Your task to perform on an android device: create a new album in the google photos Image 0: 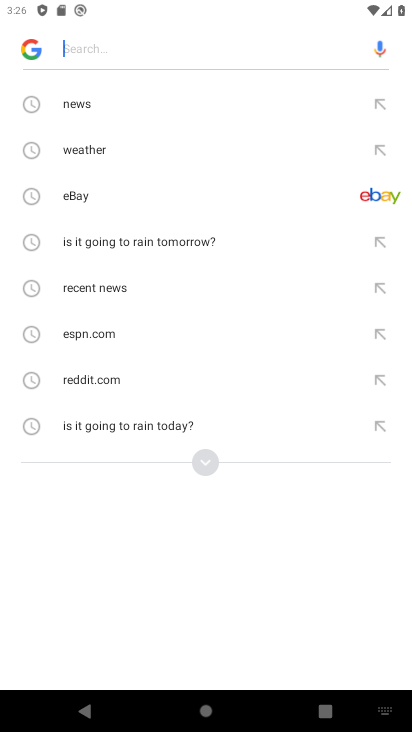
Step 0: press home button
Your task to perform on an android device: create a new album in the google photos Image 1: 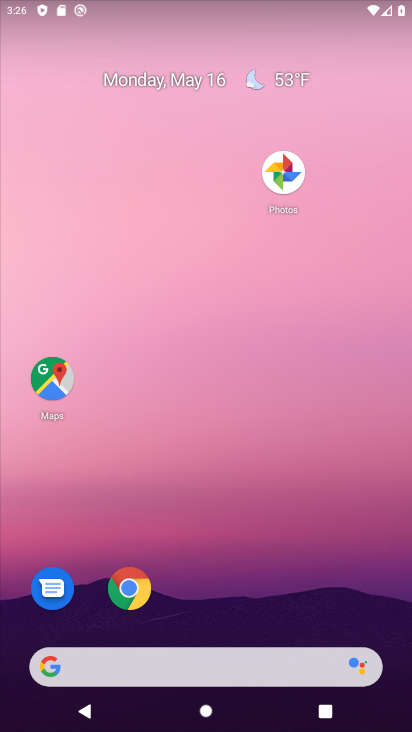
Step 1: click (272, 180)
Your task to perform on an android device: create a new album in the google photos Image 2: 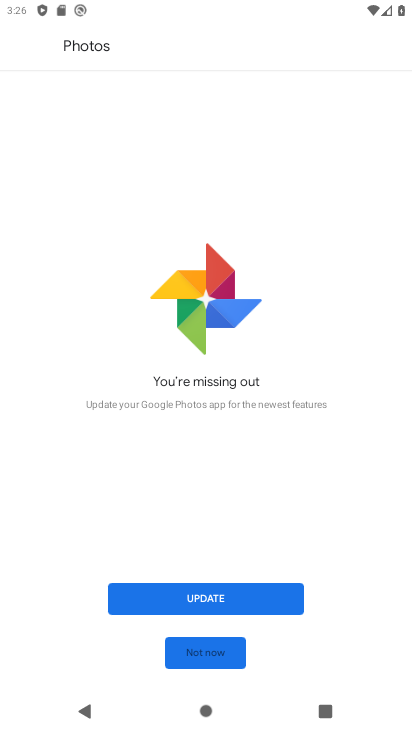
Step 2: click (199, 649)
Your task to perform on an android device: create a new album in the google photos Image 3: 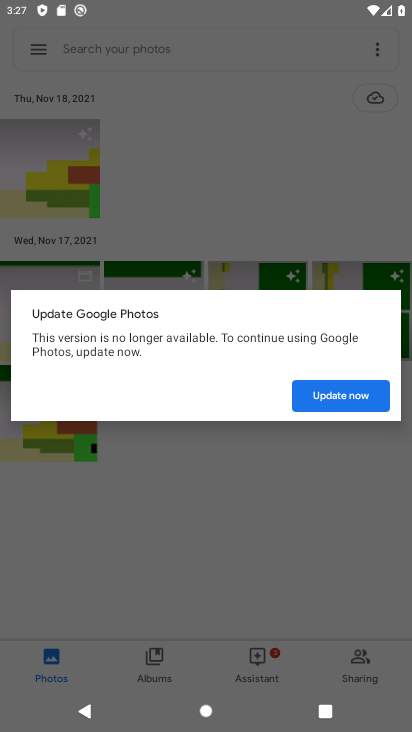
Step 3: click (199, 649)
Your task to perform on an android device: create a new album in the google photos Image 4: 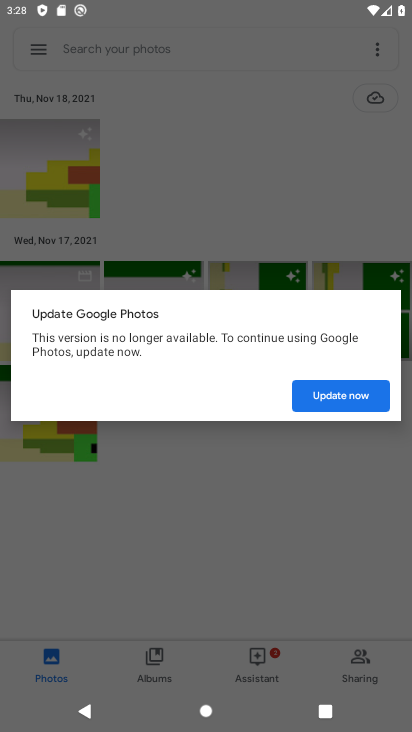
Step 4: click (348, 401)
Your task to perform on an android device: create a new album in the google photos Image 5: 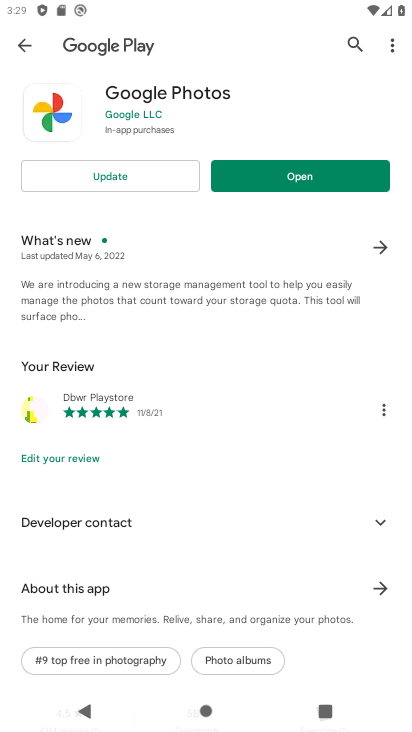
Step 5: click (253, 179)
Your task to perform on an android device: create a new album in the google photos Image 6: 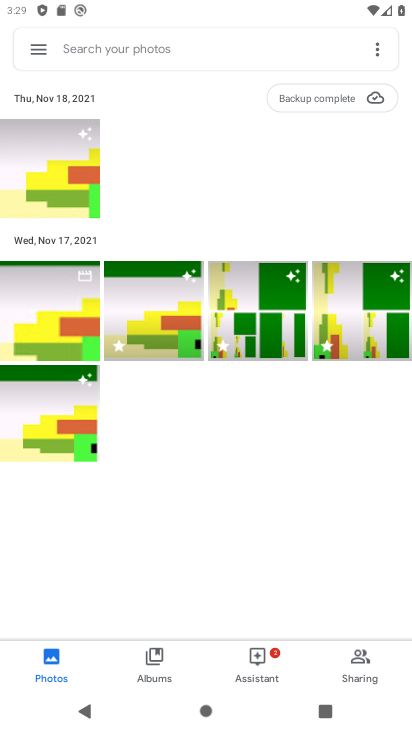
Step 6: click (123, 318)
Your task to perform on an android device: create a new album in the google photos Image 7: 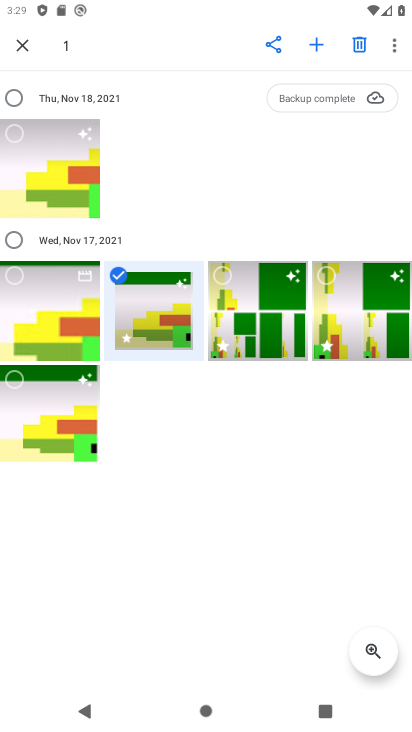
Step 7: click (46, 310)
Your task to perform on an android device: create a new album in the google photos Image 8: 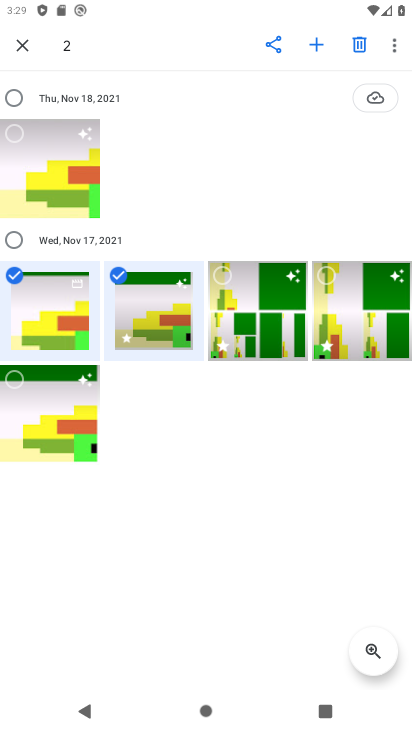
Step 8: click (316, 53)
Your task to perform on an android device: create a new album in the google photos Image 9: 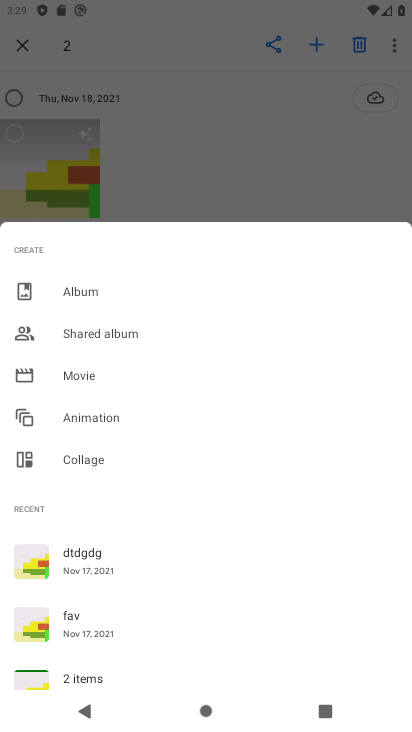
Step 9: click (123, 302)
Your task to perform on an android device: create a new album in the google photos Image 10: 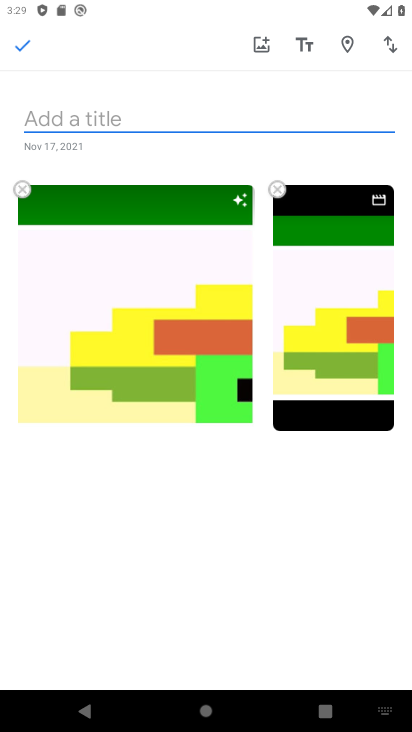
Step 10: type "bo"
Your task to perform on an android device: create a new album in the google photos Image 11: 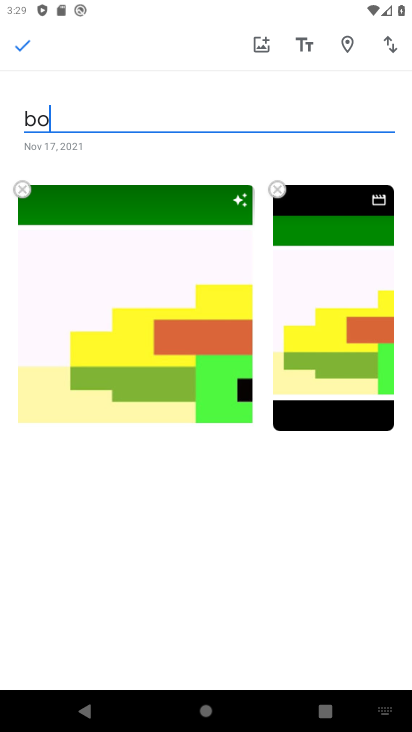
Step 11: click (22, 51)
Your task to perform on an android device: create a new album in the google photos Image 12: 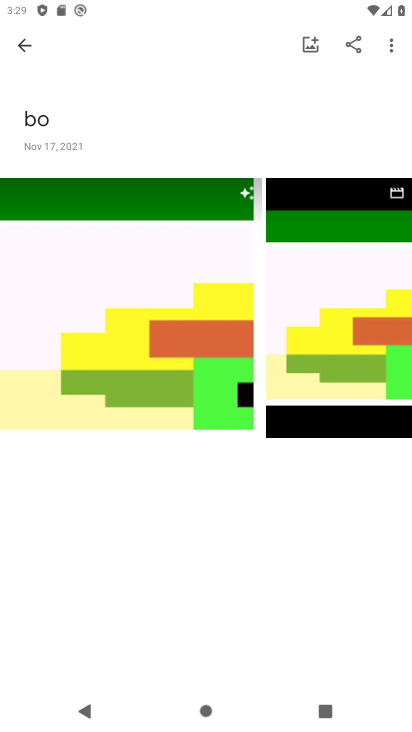
Step 12: task complete